Your task to perform on an android device: open sync settings in chrome Image 0: 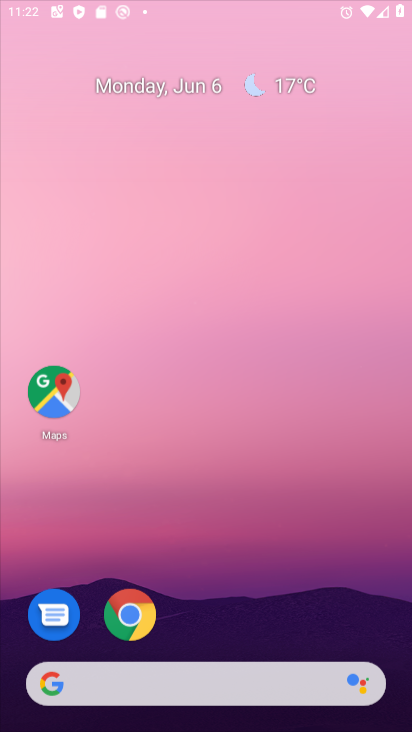
Step 0: press home button
Your task to perform on an android device: open sync settings in chrome Image 1: 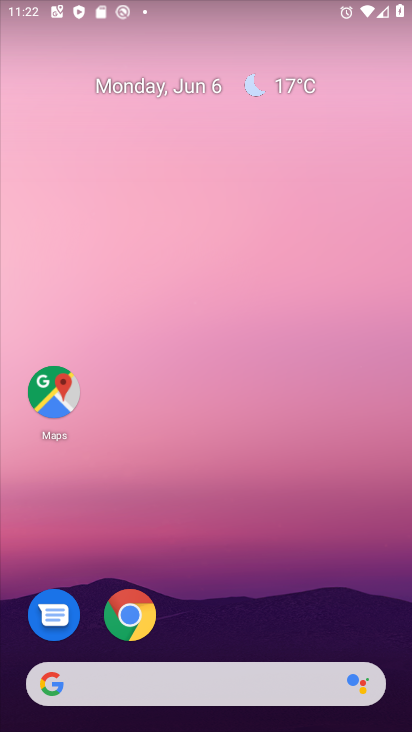
Step 1: click (133, 614)
Your task to perform on an android device: open sync settings in chrome Image 2: 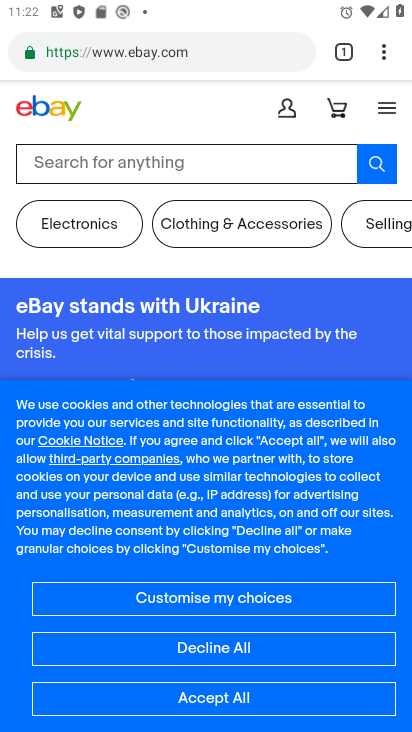
Step 2: click (387, 45)
Your task to perform on an android device: open sync settings in chrome Image 3: 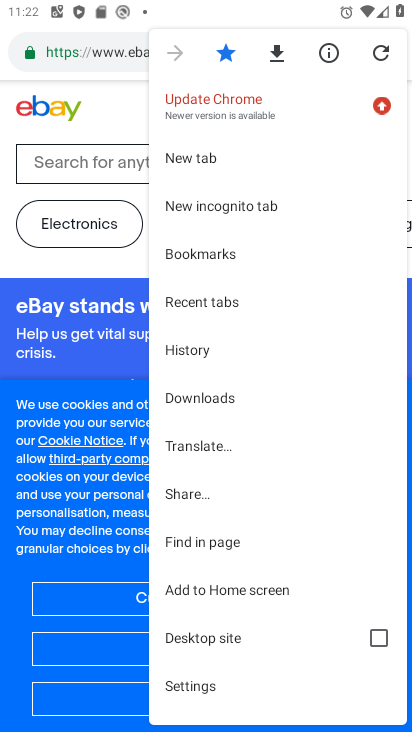
Step 3: click (233, 685)
Your task to perform on an android device: open sync settings in chrome Image 4: 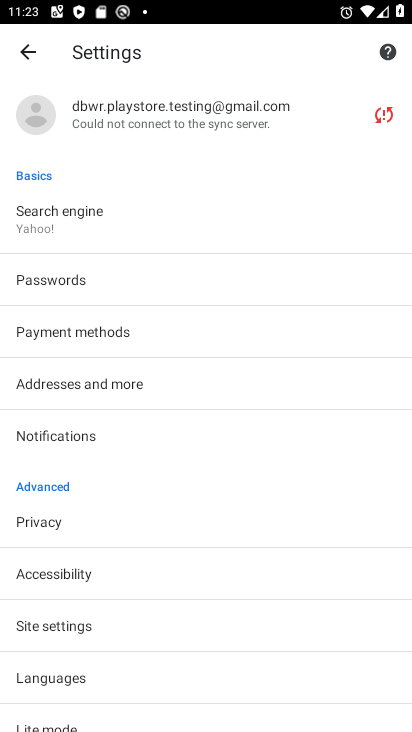
Step 4: click (165, 115)
Your task to perform on an android device: open sync settings in chrome Image 5: 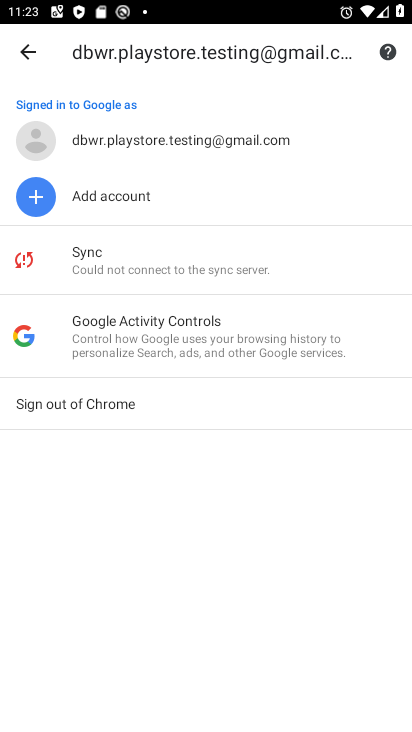
Step 5: click (123, 264)
Your task to perform on an android device: open sync settings in chrome Image 6: 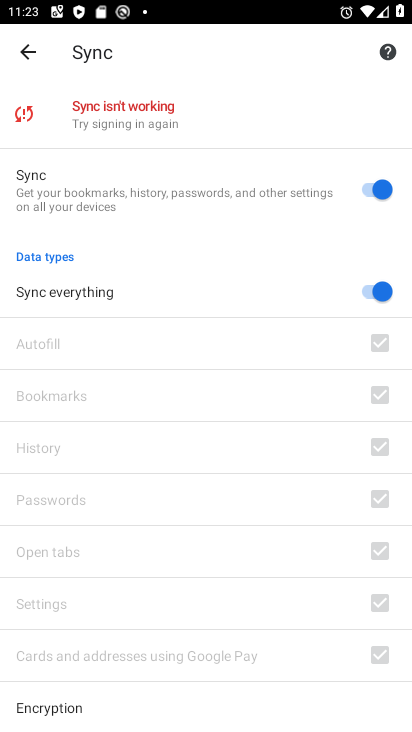
Step 6: task complete